Your task to perform on an android device: delete location history Image 0: 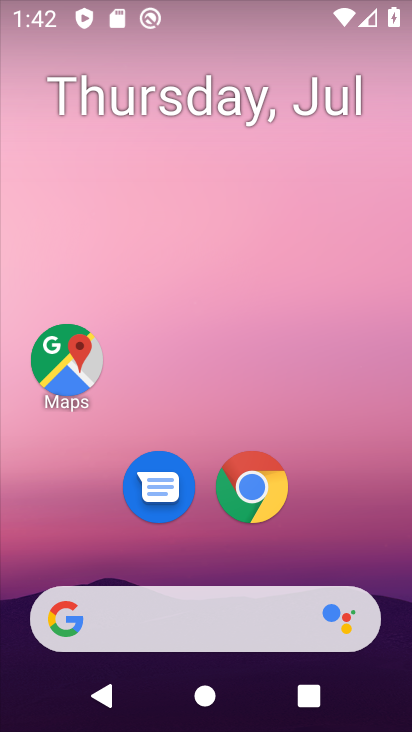
Step 0: drag from (363, 546) to (371, 153)
Your task to perform on an android device: delete location history Image 1: 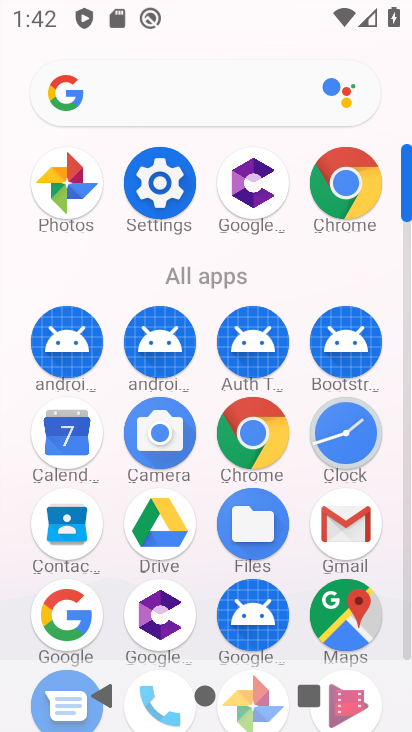
Step 1: click (355, 612)
Your task to perform on an android device: delete location history Image 2: 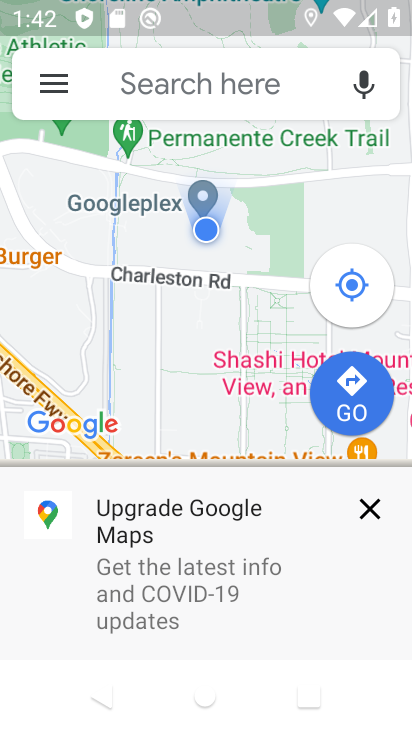
Step 2: click (55, 78)
Your task to perform on an android device: delete location history Image 3: 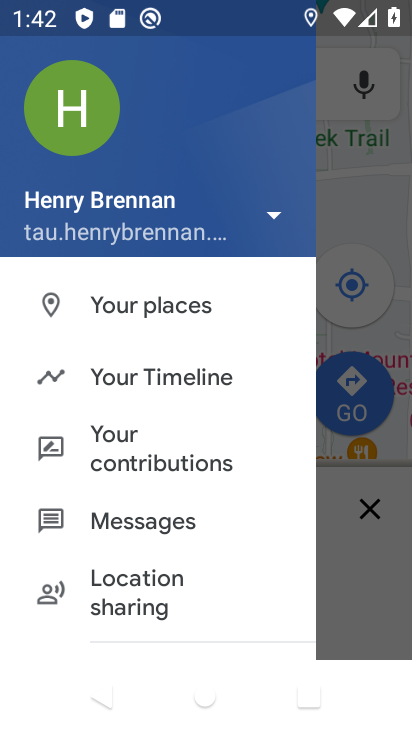
Step 3: click (148, 382)
Your task to perform on an android device: delete location history Image 4: 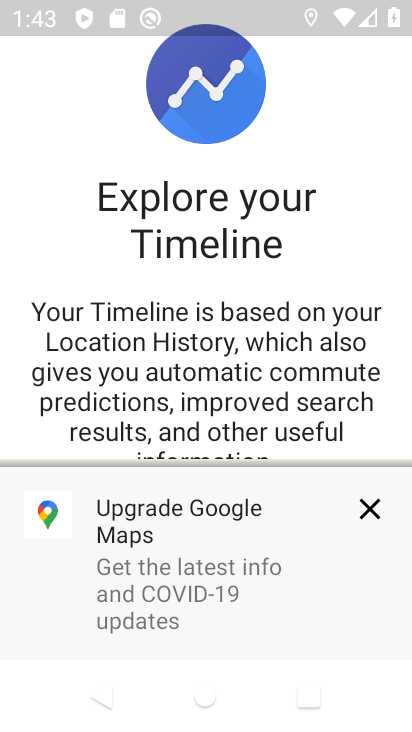
Step 4: click (362, 508)
Your task to perform on an android device: delete location history Image 5: 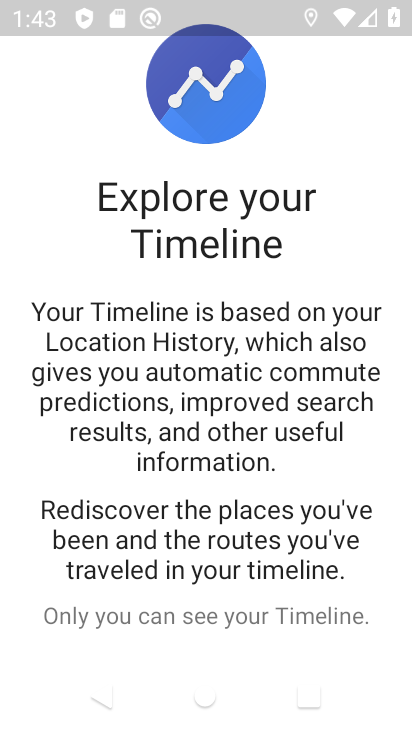
Step 5: drag from (323, 571) to (326, 285)
Your task to perform on an android device: delete location history Image 6: 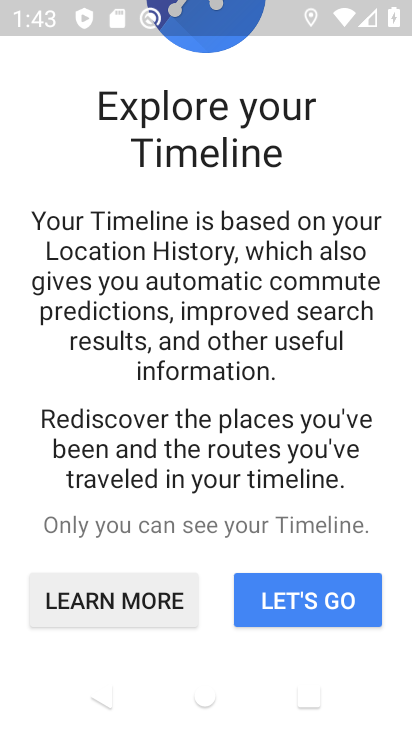
Step 6: click (311, 599)
Your task to perform on an android device: delete location history Image 7: 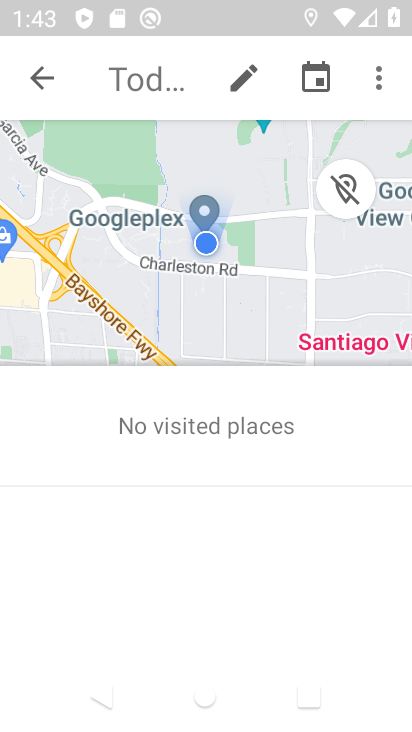
Step 7: click (379, 78)
Your task to perform on an android device: delete location history Image 8: 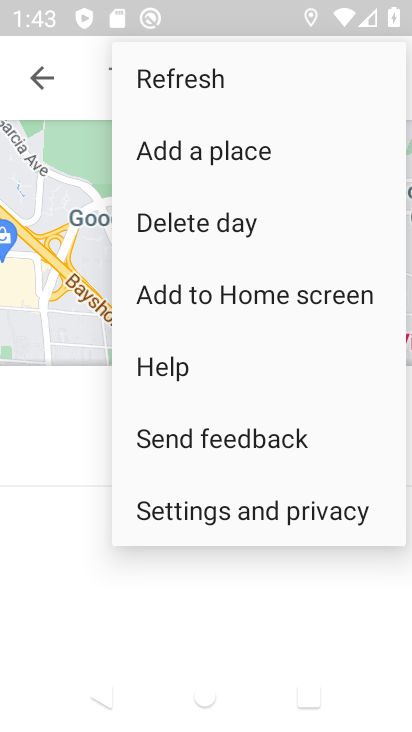
Step 8: click (342, 510)
Your task to perform on an android device: delete location history Image 9: 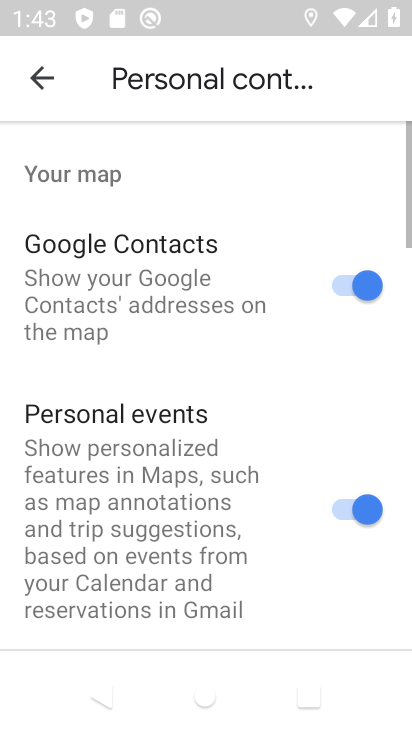
Step 9: drag from (296, 503) to (304, 363)
Your task to perform on an android device: delete location history Image 10: 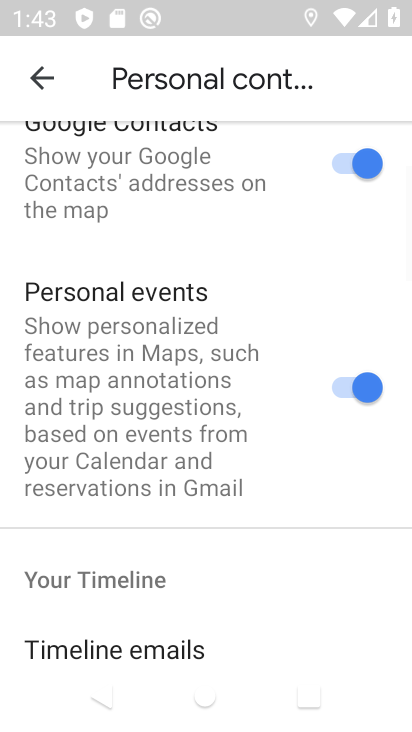
Step 10: drag from (298, 510) to (297, 395)
Your task to perform on an android device: delete location history Image 11: 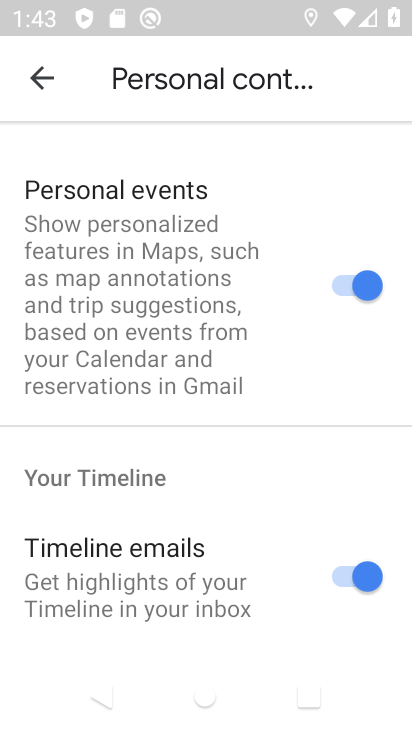
Step 11: drag from (272, 516) to (272, 385)
Your task to perform on an android device: delete location history Image 12: 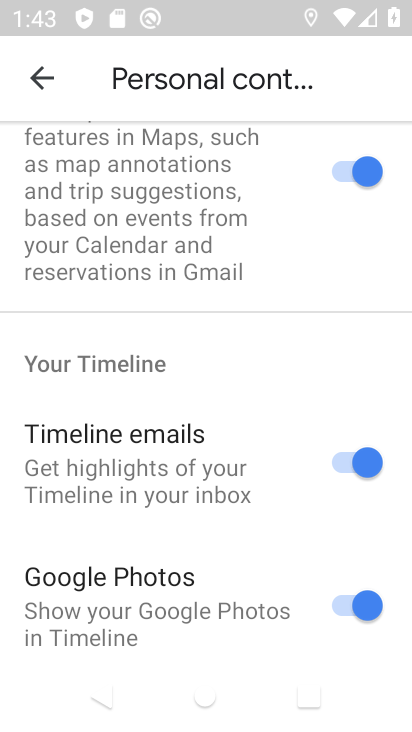
Step 12: drag from (273, 551) to (274, 416)
Your task to perform on an android device: delete location history Image 13: 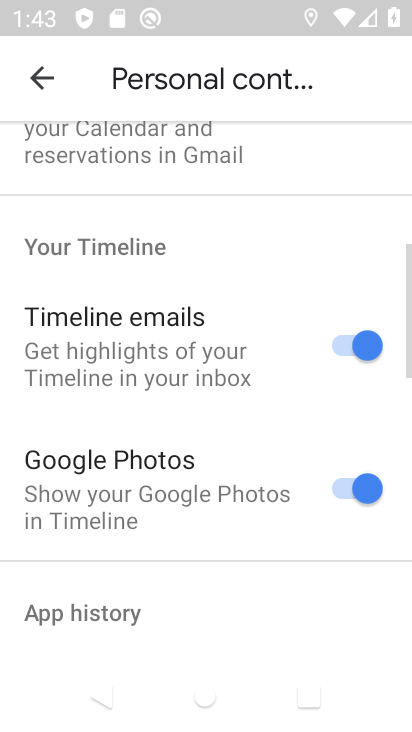
Step 13: drag from (287, 525) to (287, 419)
Your task to perform on an android device: delete location history Image 14: 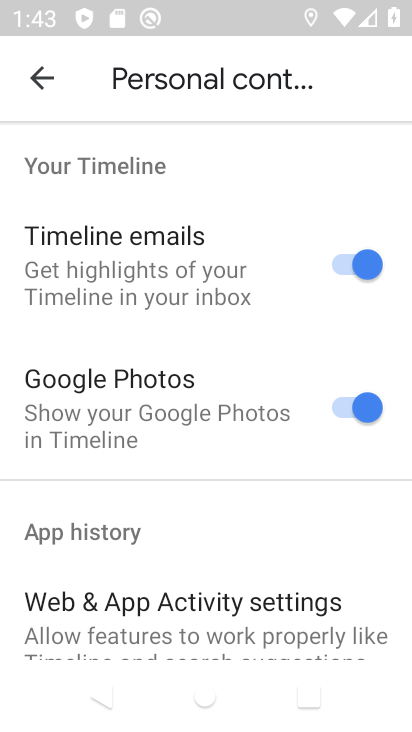
Step 14: drag from (287, 525) to (290, 431)
Your task to perform on an android device: delete location history Image 15: 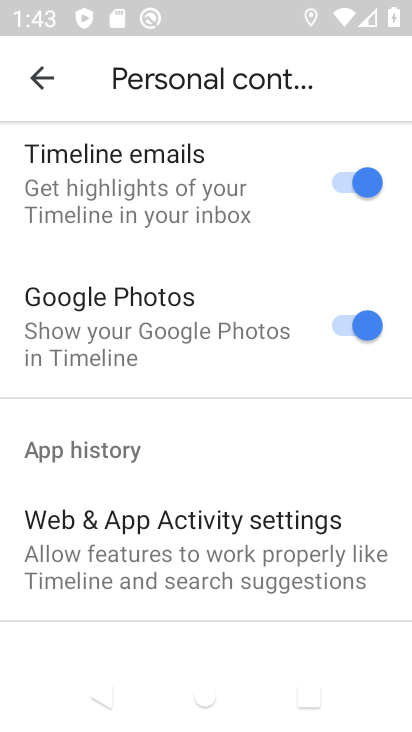
Step 15: drag from (294, 584) to (294, 439)
Your task to perform on an android device: delete location history Image 16: 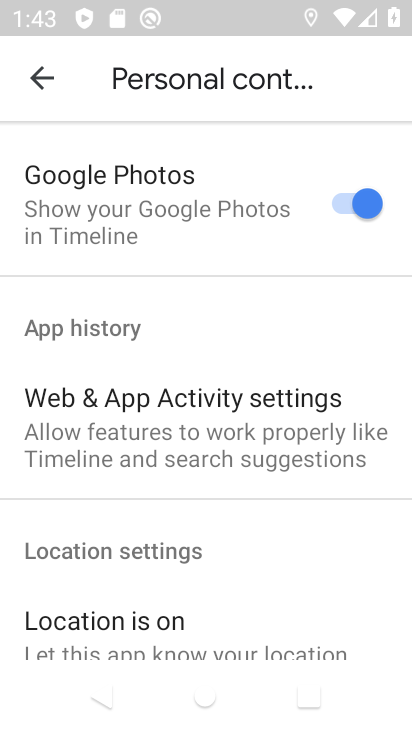
Step 16: drag from (289, 575) to (289, 447)
Your task to perform on an android device: delete location history Image 17: 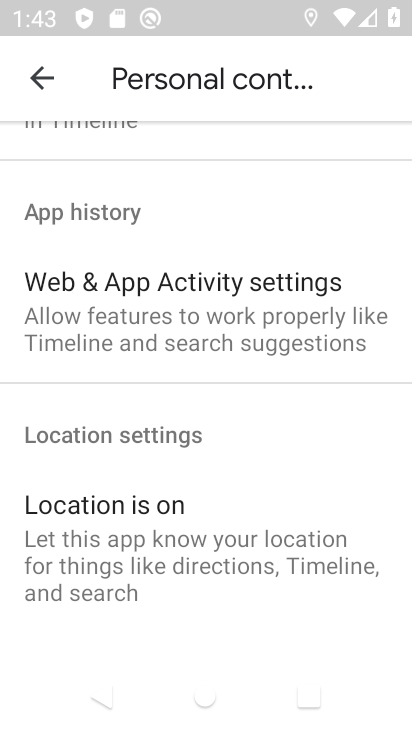
Step 17: drag from (290, 594) to (293, 450)
Your task to perform on an android device: delete location history Image 18: 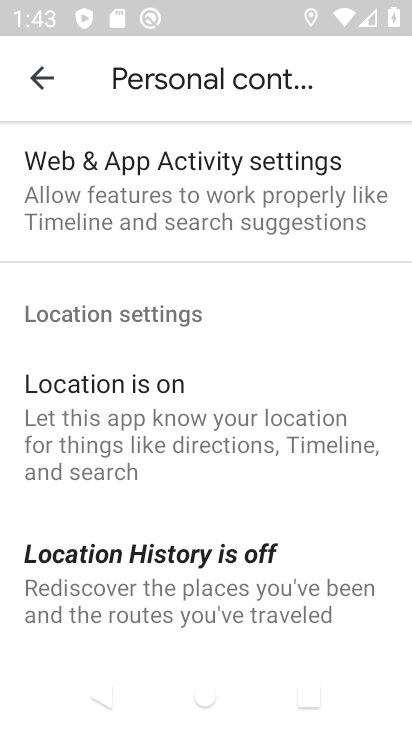
Step 18: drag from (296, 597) to (311, 427)
Your task to perform on an android device: delete location history Image 19: 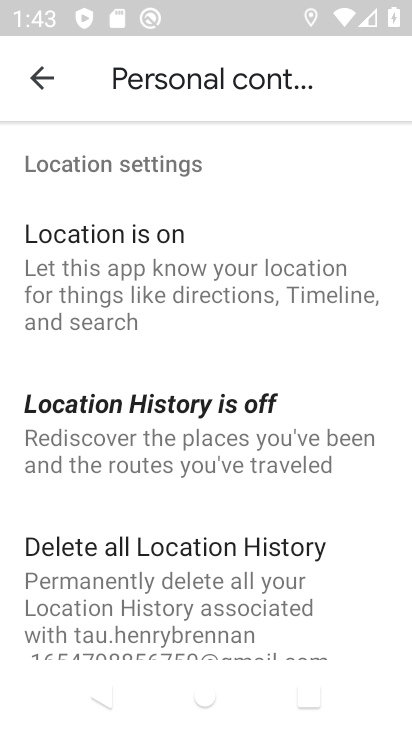
Step 19: drag from (348, 609) to (346, 466)
Your task to perform on an android device: delete location history Image 20: 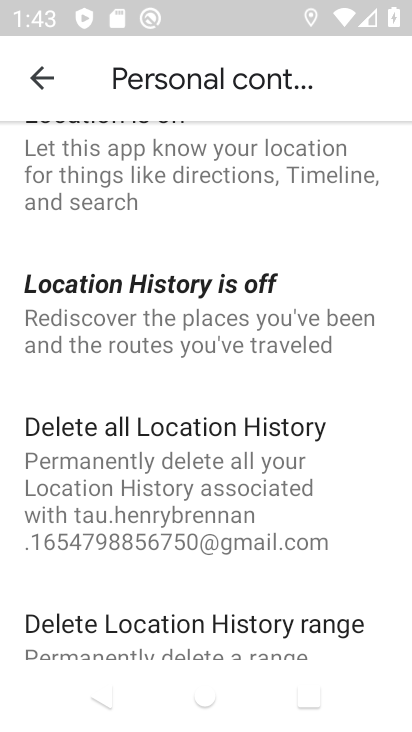
Step 20: drag from (345, 579) to (344, 438)
Your task to perform on an android device: delete location history Image 21: 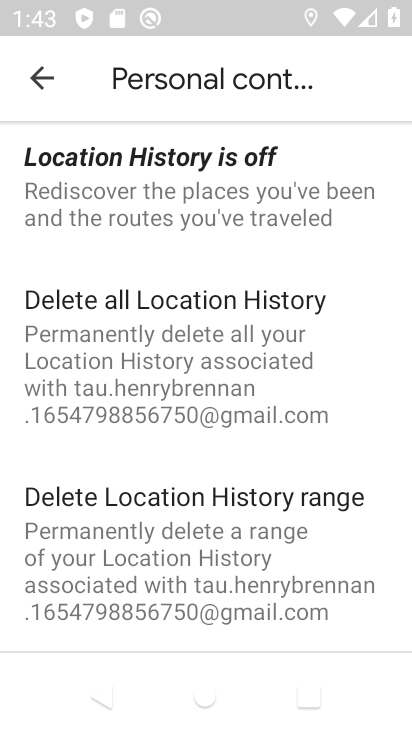
Step 21: click (226, 342)
Your task to perform on an android device: delete location history Image 22: 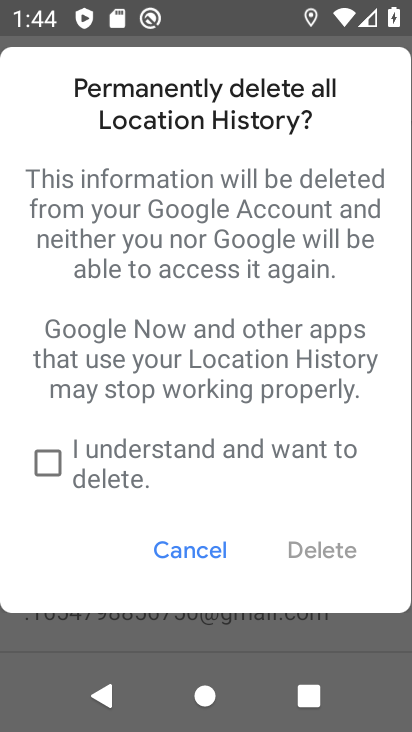
Step 22: click (62, 464)
Your task to perform on an android device: delete location history Image 23: 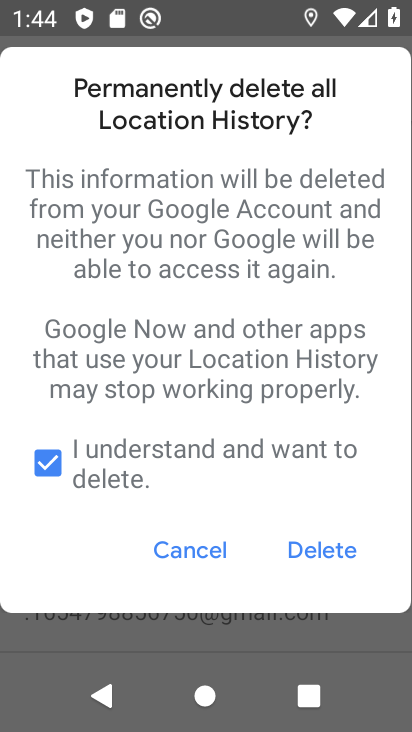
Step 23: click (341, 560)
Your task to perform on an android device: delete location history Image 24: 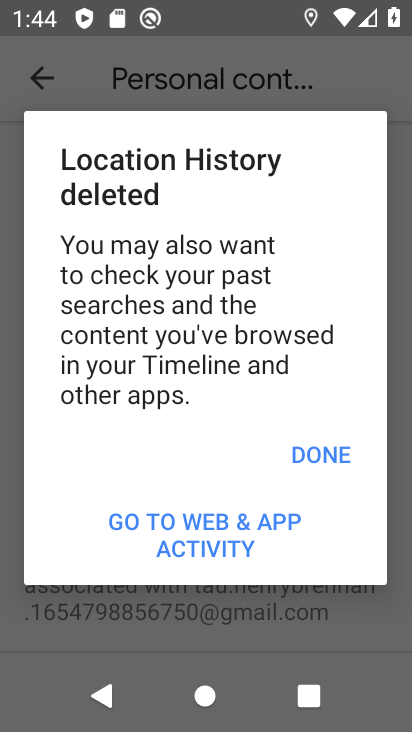
Step 24: click (329, 453)
Your task to perform on an android device: delete location history Image 25: 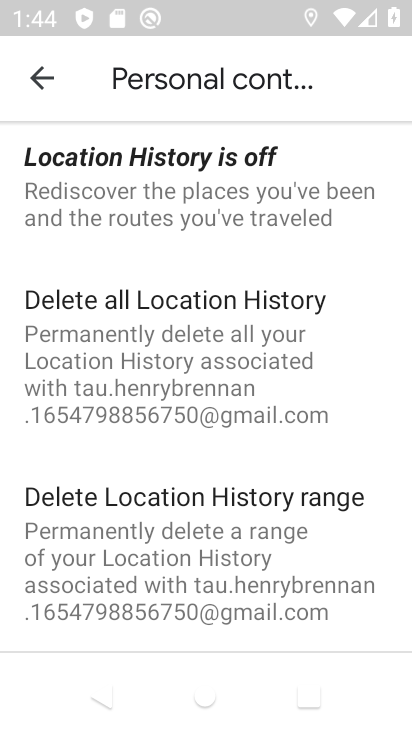
Step 25: task complete